Your task to perform on an android device: Show me popular videos on Youtube Image 0: 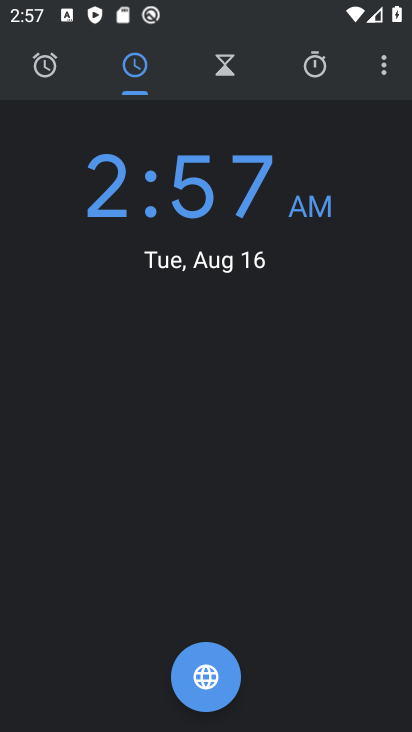
Step 0: press back button
Your task to perform on an android device: Show me popular videos on Youtube Image 1: 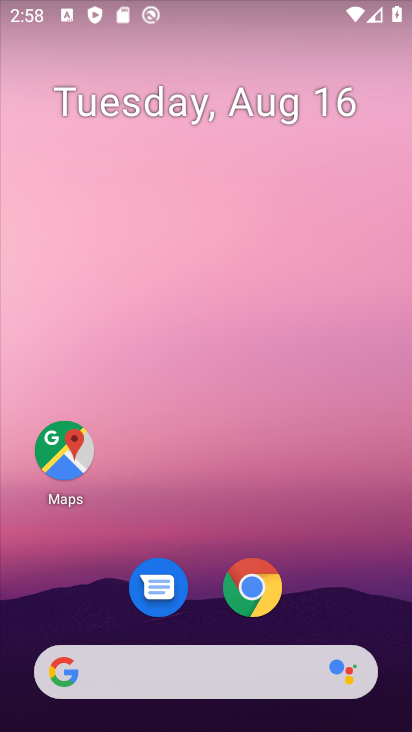
Step 1: drag from (104, 597) to (225, 57)
Your task to perform on an android device: Show me popular videos on Youtube Image 2: 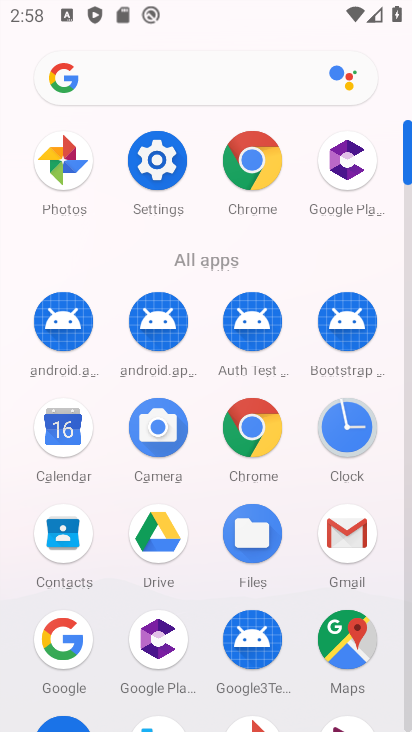
Step 2: drag from (220, 660) to (309, 96)
Your task to perform on an android device: Show me popular videos on Youtube Image 3: 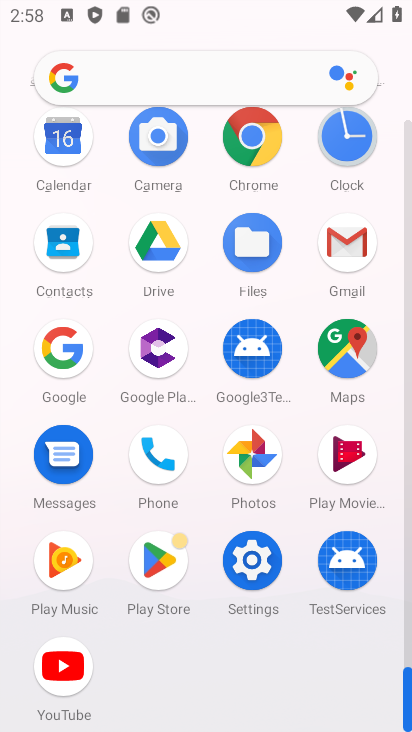
Step 3: click (70, 669)
Your task to perform on an android device: Show me popular videos on Youtube Image 4: 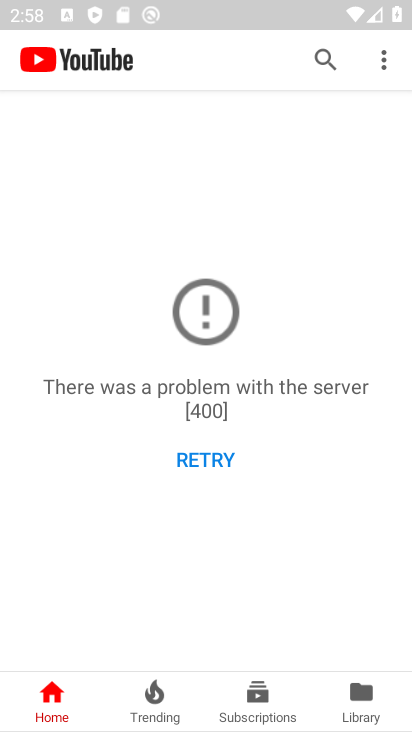
Step 4: task complete